Your task to perform on an android device: turn off location Image 0: 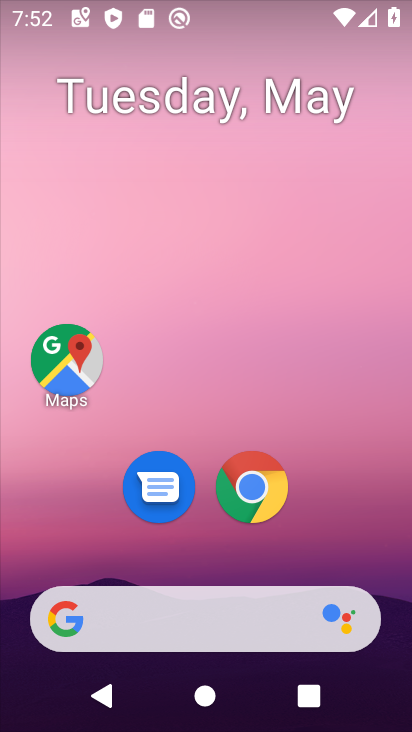
Step 0: drag from (349, 548) to (373, 157)
Your task to perform on an android device: turn off location Image 1: 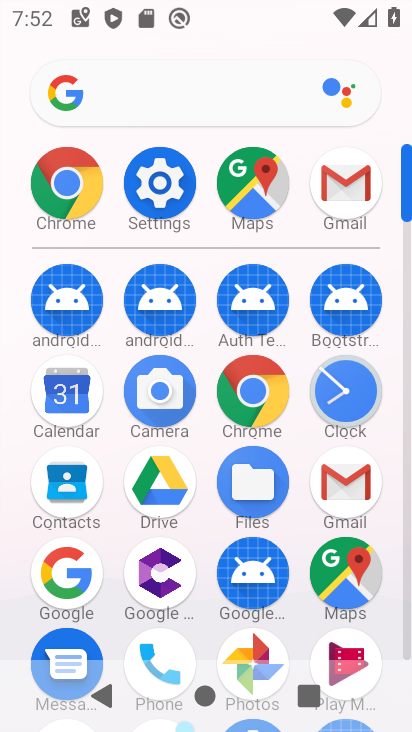
Step 1: click (182, 208)
Your task to perform on an android device: turn off location Image 2: 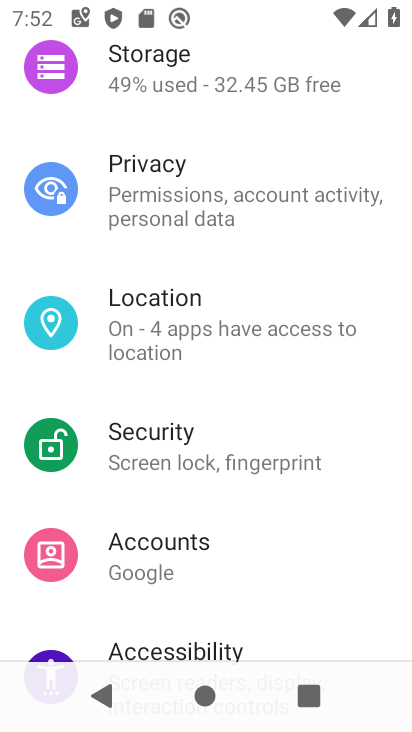
Step 2: click (196, 311)
Your task to perform on an android device: turn off location Image 3: 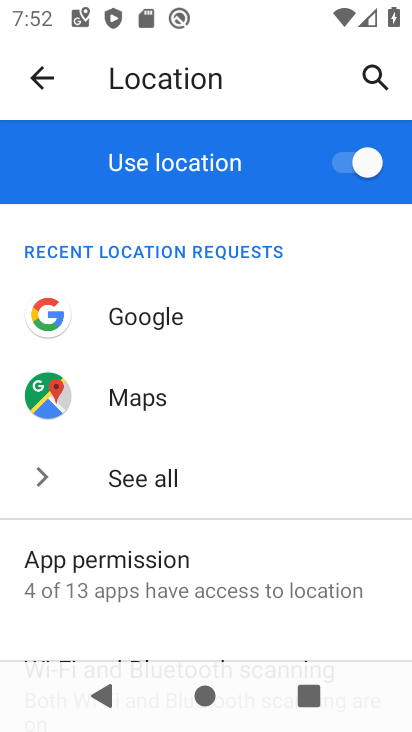
Step 3: click (353, 171)
Your task to perform on an android device: turn off location Image 4: 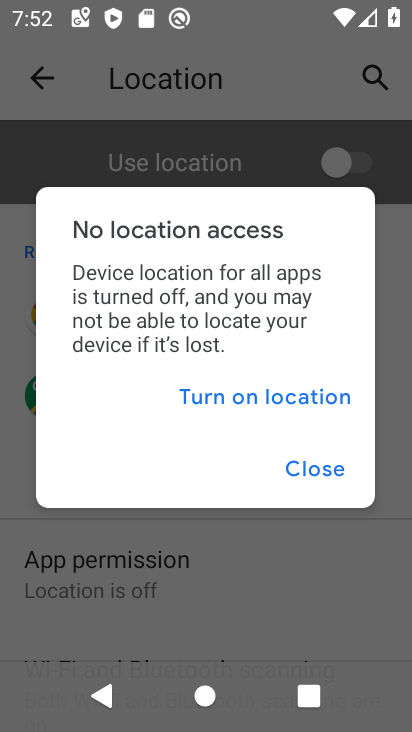
Step 4: click (313, 470)
Your task to perform on an android device: turn off location Image 5: 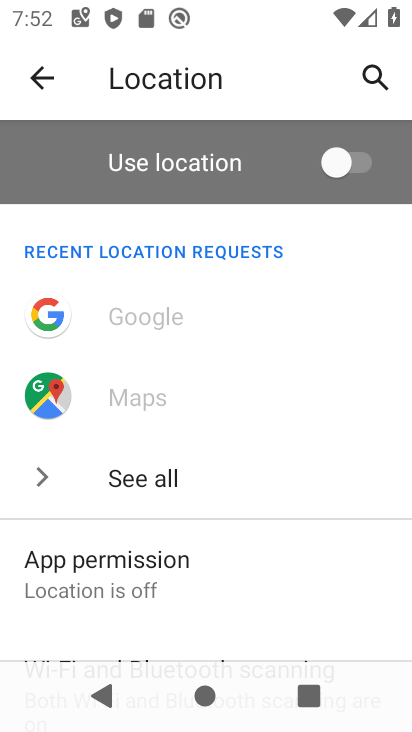
Step 5: task complete